Your task to perform on an android device: Show me recent news Image 0: 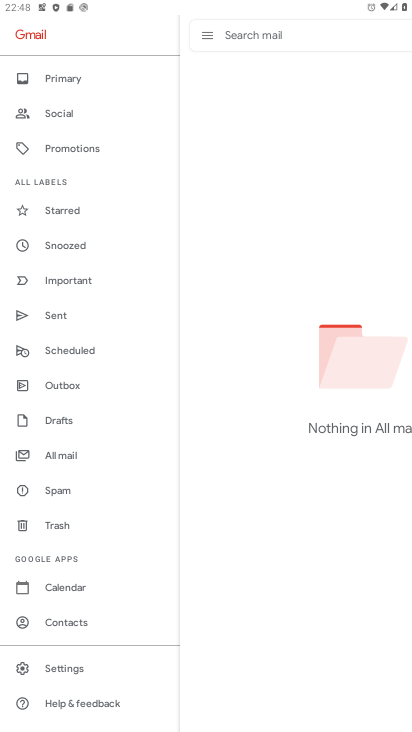
Step 0: press home button
Your task to perform on an android device: Show me recent news Image 1: 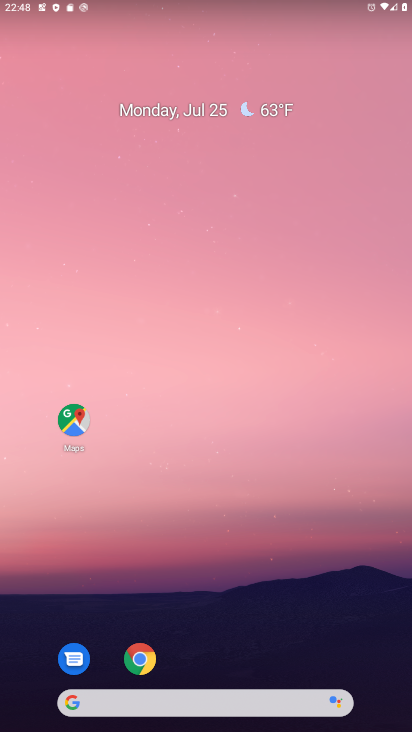
Step 1: task complete